Your task to perform on an android device: toggle location history Image 0: 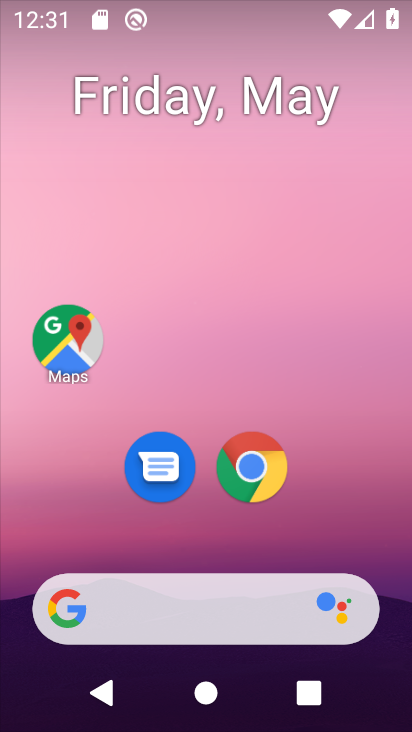
Step 0: drag from (339, 462) to (236, 10)
Your task to perform on an android device: toggle location history Image 1: 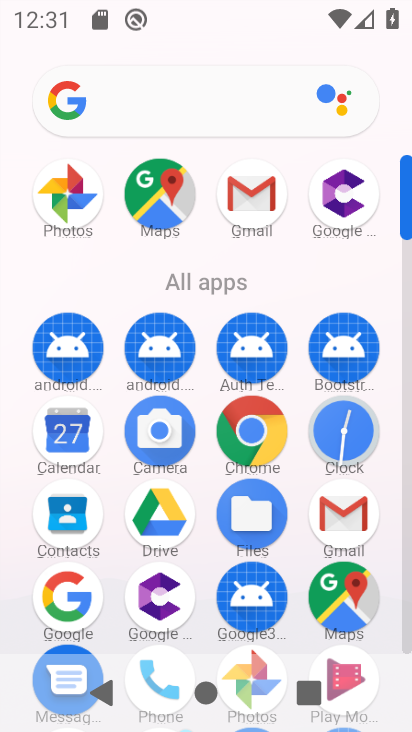
Step 1: drag from (388, 477) to (407, 138)
Your task to perform on an android device: toggle location history Image 2: 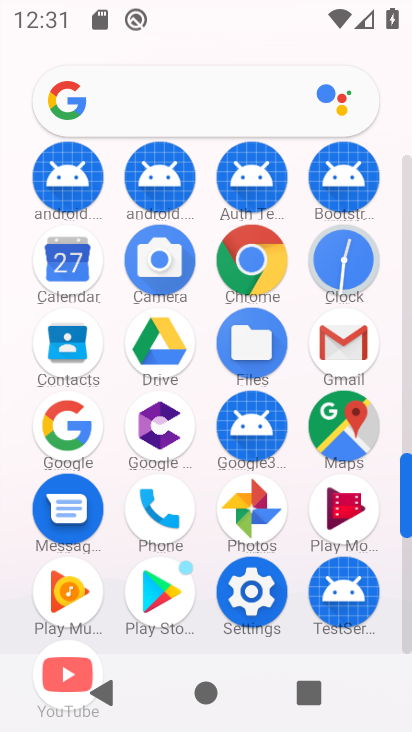
Step 2: click (246, 607)
Your task to perform on an android device: toggle location history Image 3: 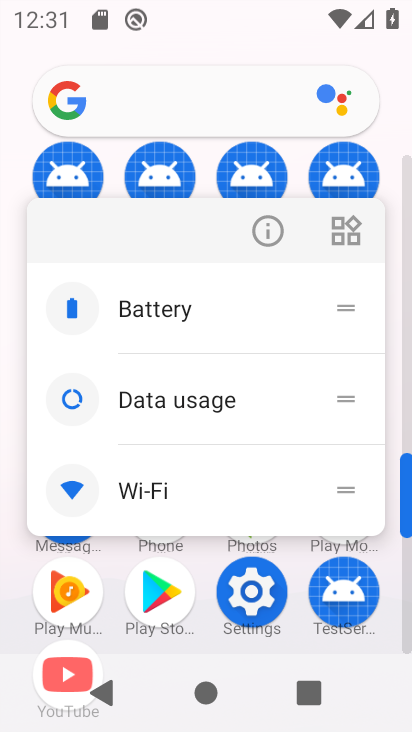
Step 3: click (229, 599)
Your task to perform on an android device: toggle location history Image 4: 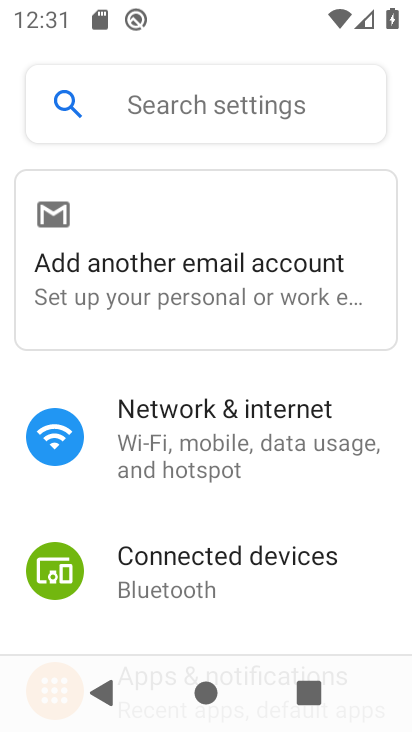
Step 4: drag from (180, 464) to (197, 161)
Your task to perform on an android device: toggle location history Image 5: 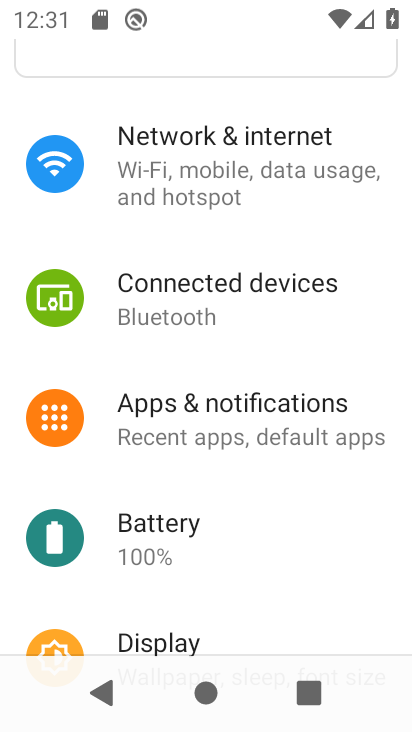
Step 5: drag from (227, 476) to (210, 155)
Your task to perform on an android device: toggle location history Image 6: 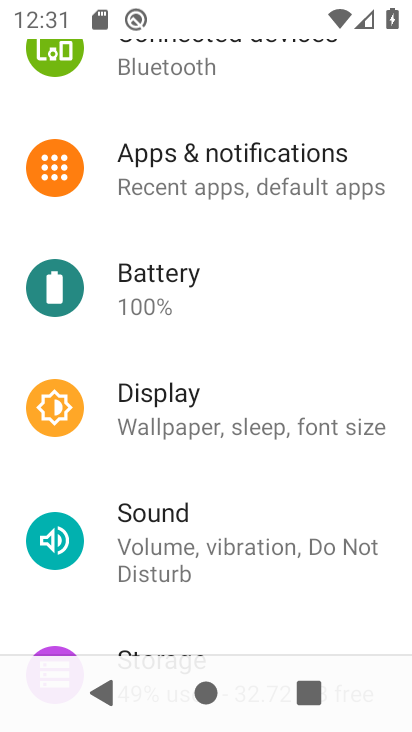
Step 6: drag from (235, 540) to (251, 204)
Your task to perform on an android device: toggle location history Image 7: 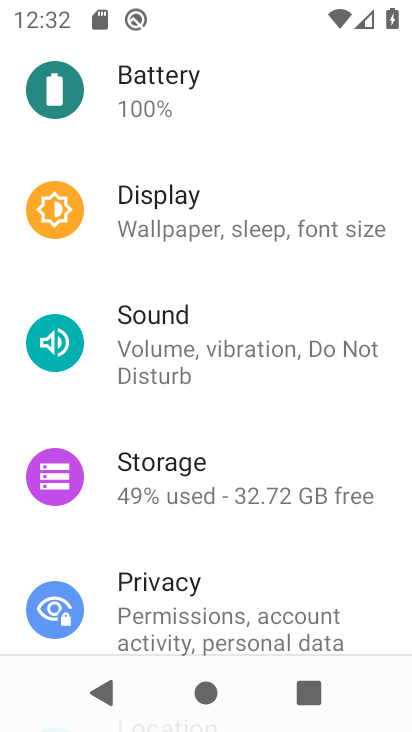
Step 7: drag from (264, 556) to (312, 204)
Your task to perform on an android device: toggle location history Image 8: 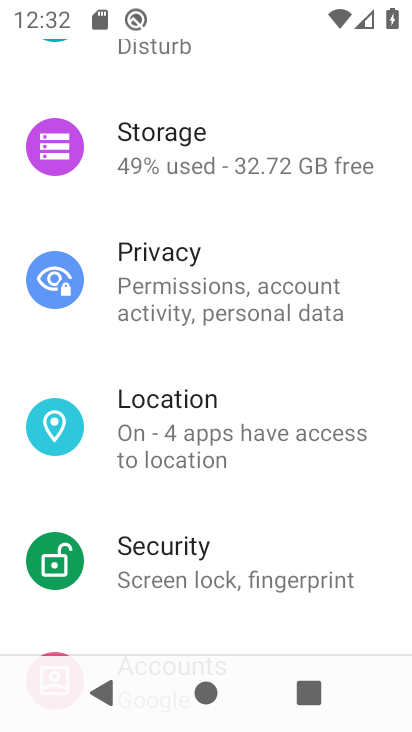
Step 8: click (204, 417)
Your task to perform on an android device: toggle location history Image 9: 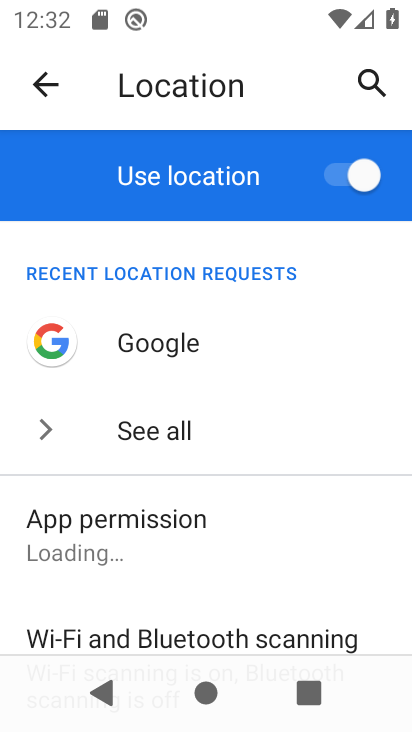
Step 9: drag from (263, 505) to (294, 220)
Your task to perform on an android device: toggle location history Image 10: 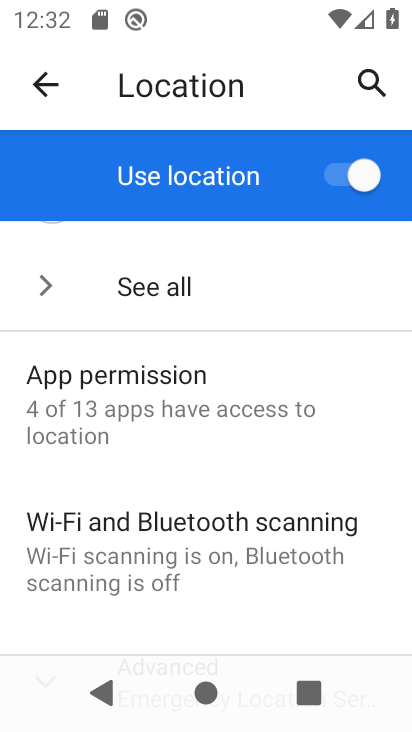
Step 10: drag from (243, 427) to (240, 218)
Your task to perform on an android device: toggle location history Image 11: 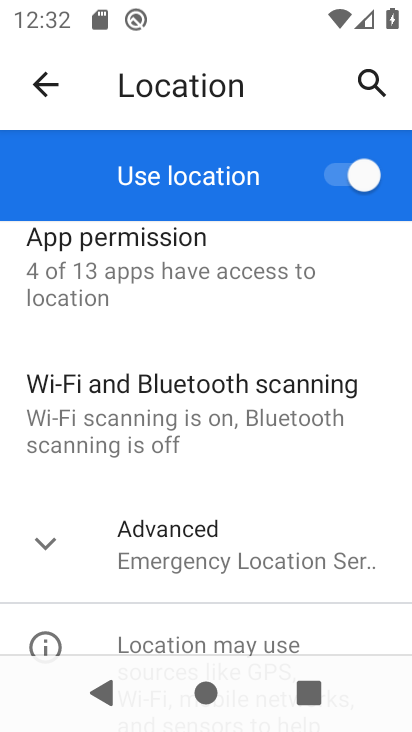
Step 11: drag from (218, 499) to (221, 189)
Your task to perform on an android device: toggle location history Image 12: 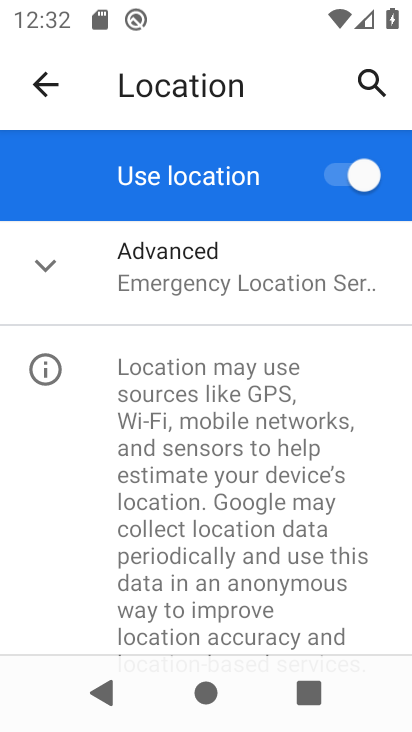
Step 12: click (185, 244)
Your task to perform on an android device: toggle location history Image 13: 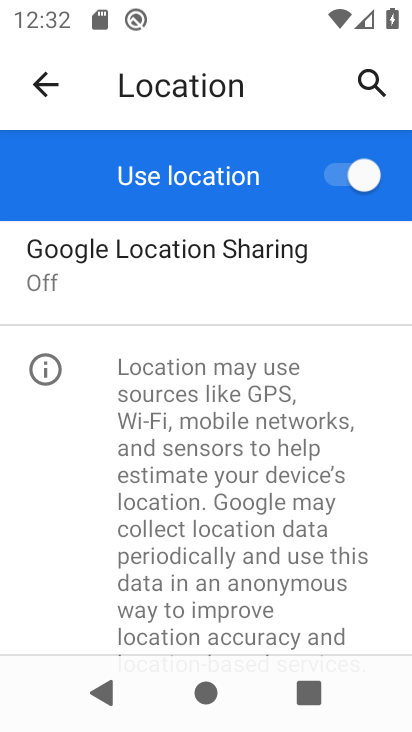
Step 13: drag from (255, 441) to (262, 176)
Your task to perform on an android device: toggle location history Image 14: 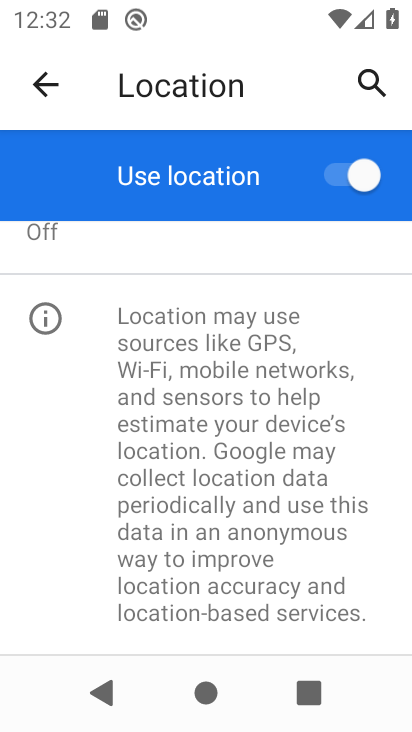
Step 14: drag from (270, 487) to (252, 226)
Your task to perform on an android device: toggle location history Image 15: 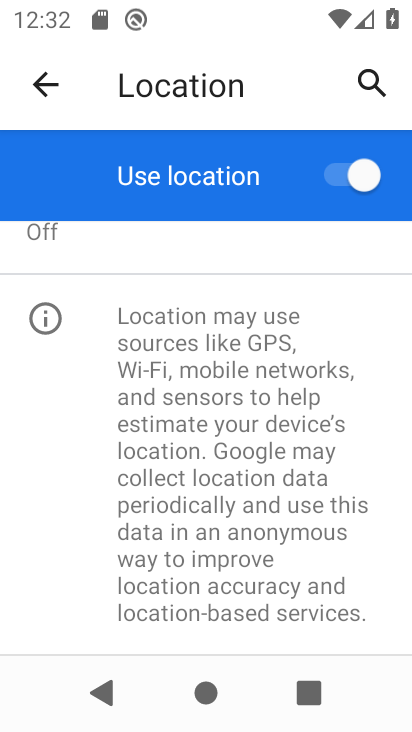
Step 15: drag from (271, 542) to (259, 267)
Your task to perform on an android device: toggle location history Image 16: 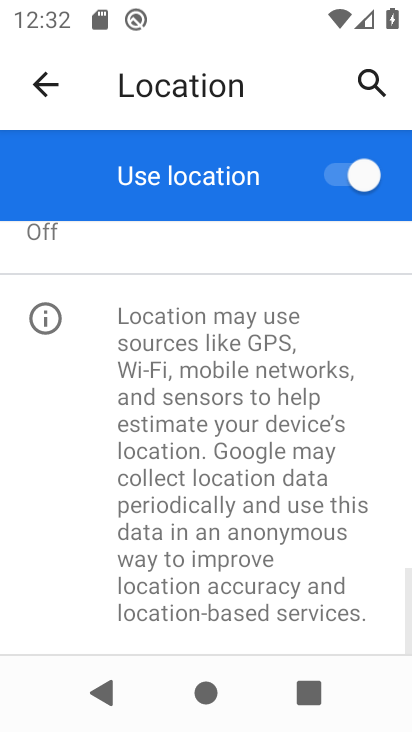
Step 16: drag from (222, 443) to (272, 644)
Your task to perform on an android device: toggle location history Image 17: 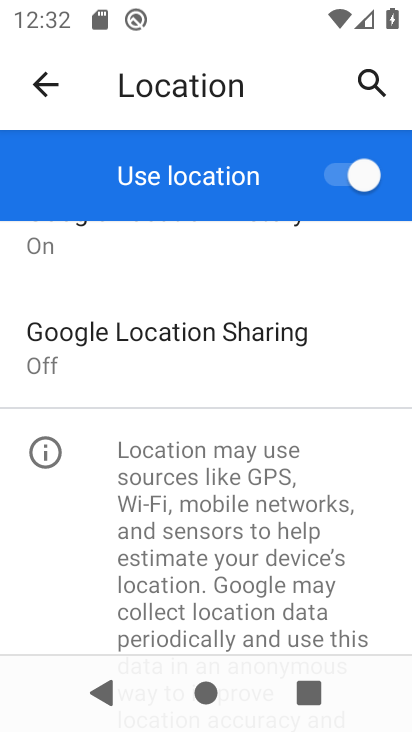
Step 17: drag from (232, 320) to (254, 611)
Your task to perform on an android device: toggle location history Image 18: 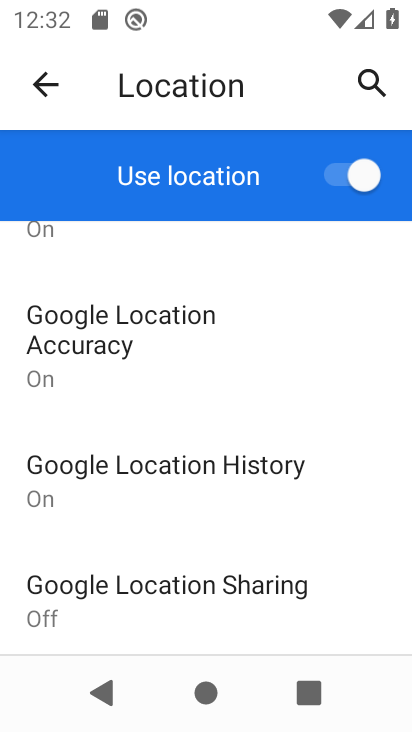
Step 18: click (188, 456)
Your task to perform on an android device: toggle location history Image 19: 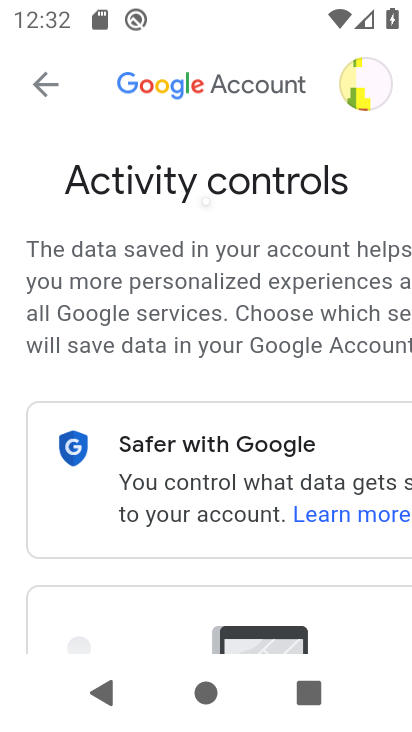
Step 19: drag from (215, 532) to (249, 211)
Your task to perform on an android device: toggle location history Image 20: 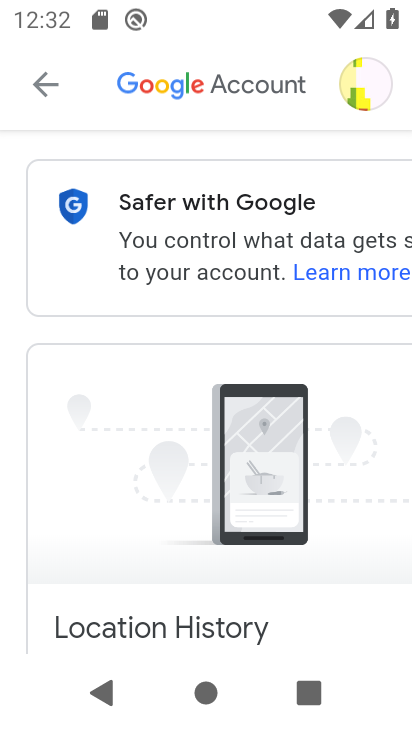
Step 20: drag from (230, 474) to (238, 164)
Your task to perform on an android device: toggle location history Image 21: 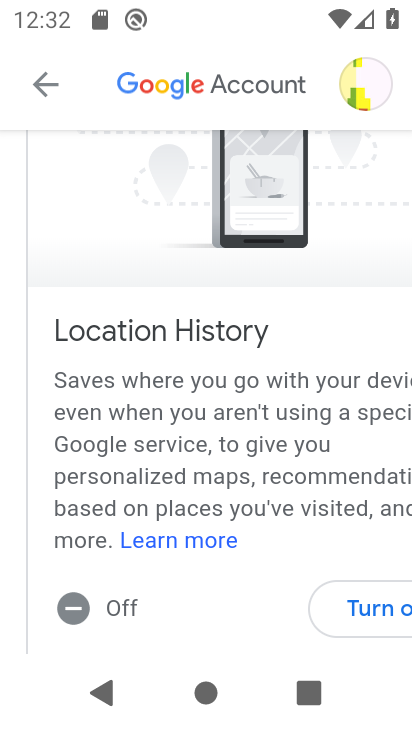
Step 21: drag from (236, 463) to (210, 267)
Your task to perform on an android device: toggle location history Image 22: 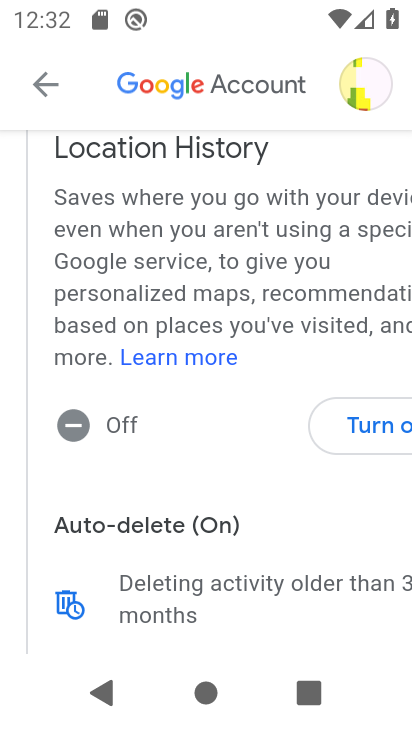
Step 22: click (346, 432)
Your task to perform on an android device: toggle location history Image 23: 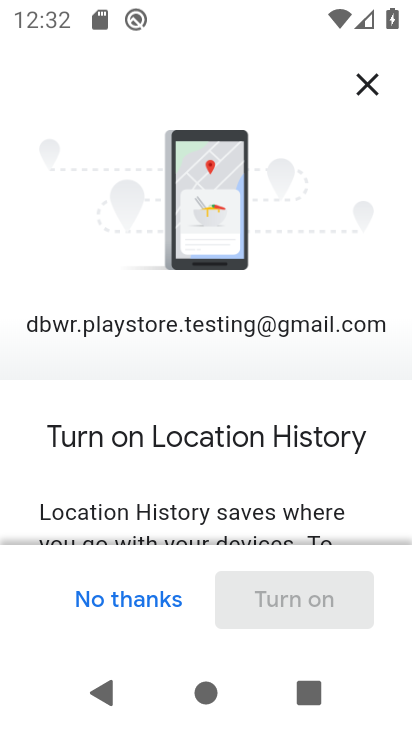
Step 23: drag from (308, 437) to (305, 114)
Your task to perform on an android device: toggle location history Image 24: 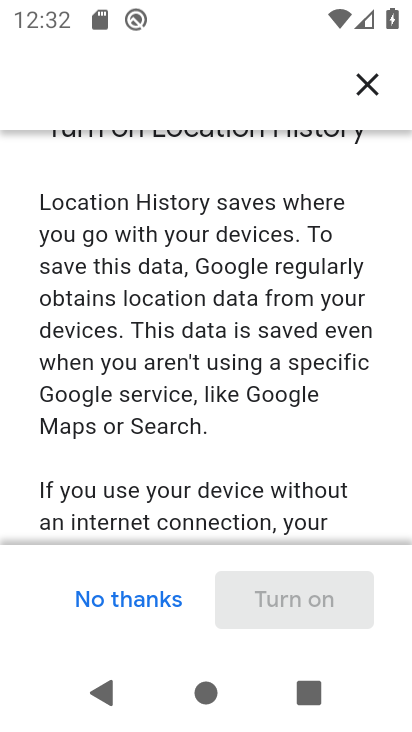
Step 24: drag from (270, 415) to (294, 122)
Your task to perform on an android device: toggle location history Image 25: 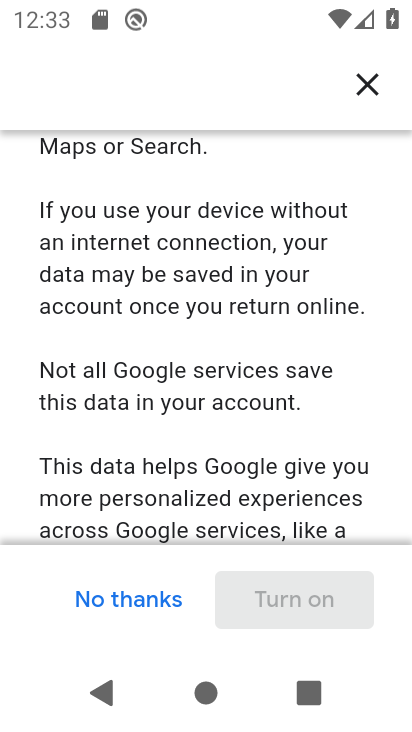
Step 25: drag from (294, 401) to (276, 176)
Your task to perform on an android device: toggle location history Image 26: 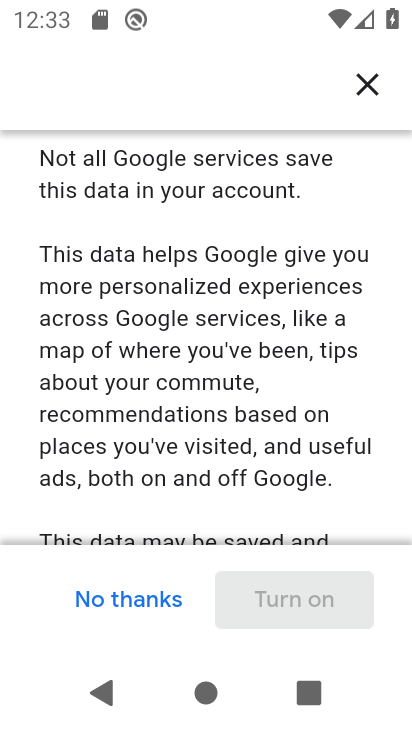
Step 26: drag from (276, 439) to (253, 97)
Your task to perform on an android device: toggle location history Image 27: 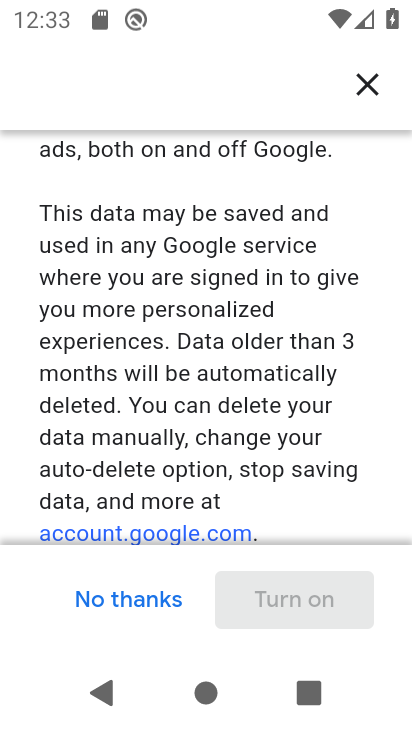
Step 27: drag from (243, 472) to (219, 100)
Your task to perform on an android device: toggle location history Image 28: 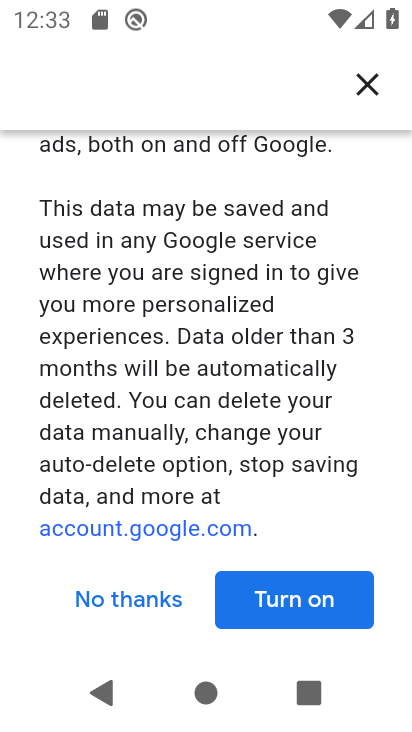
Step 28: click (303, 593)
Your task to perform on an android device: toggle location history Image 29: 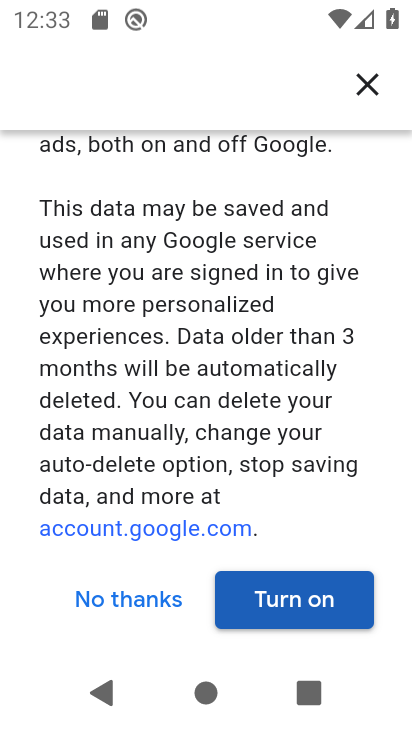
Step 29: click (305, 603)
Your task to perform on an android device: toggle location history Image 30: 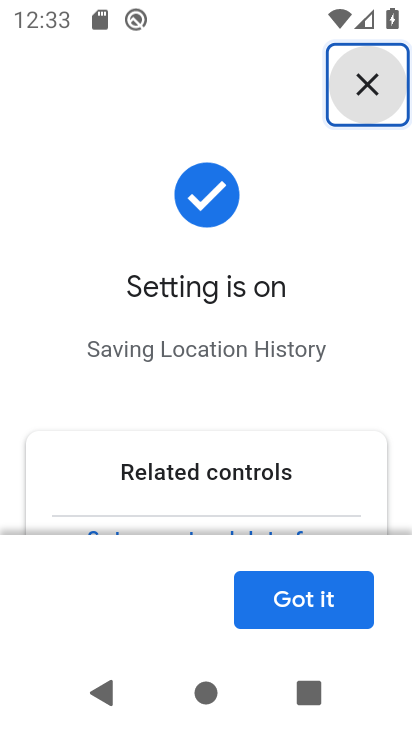
Step 30: task complete